Your task to perform on an android device: uninstall "Facebook" Image 0: 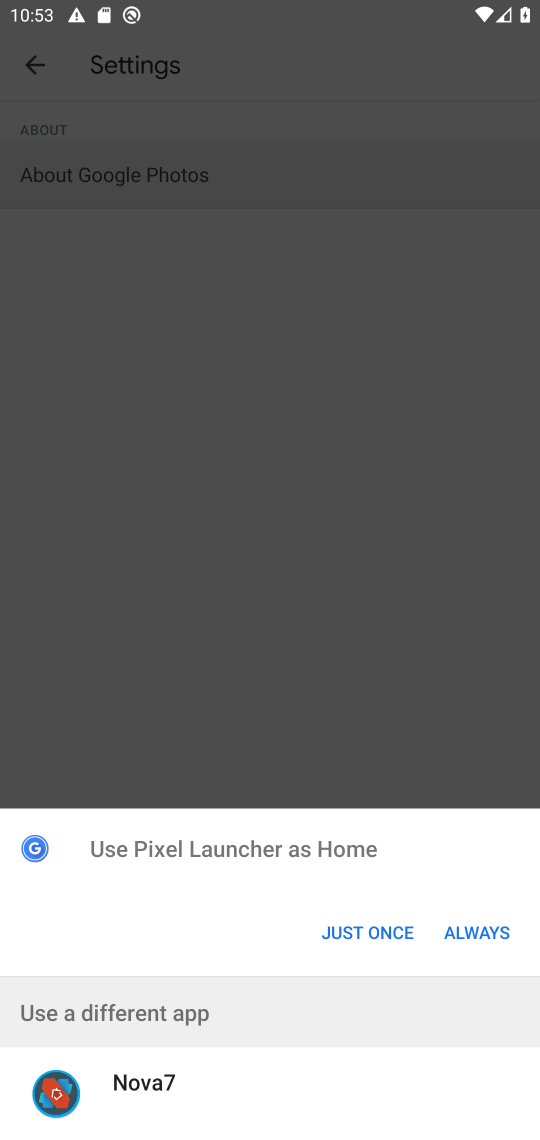
Step 0: click (481, 942)
Your task to perform on an android device: uninstall "Facebook" Image 1: 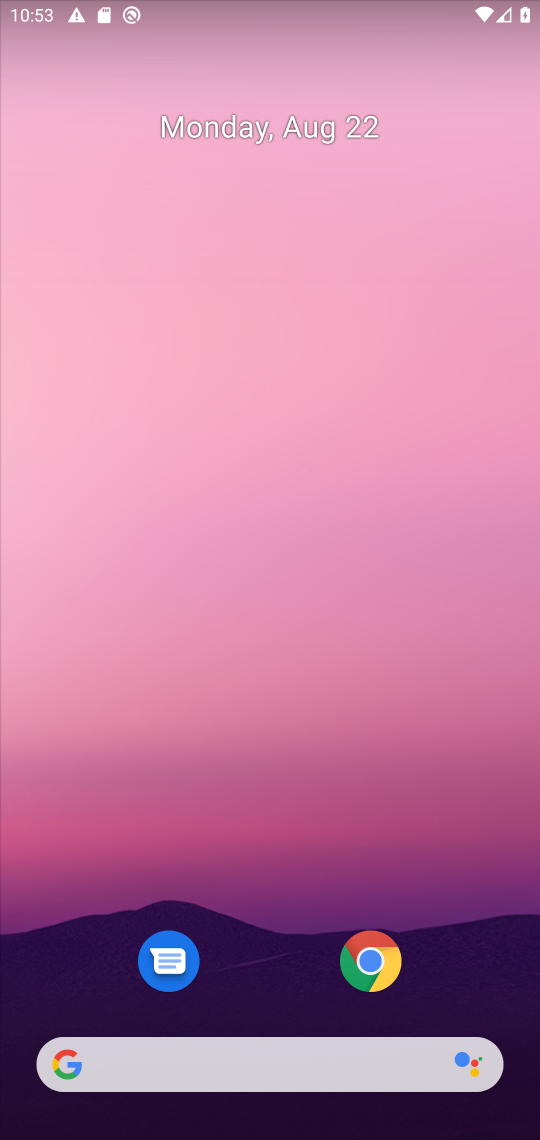
Step 1: drag from (276, 1019) to (234, 6)
Your task to perform on an android device: uninstall "Facebook" Image 2: 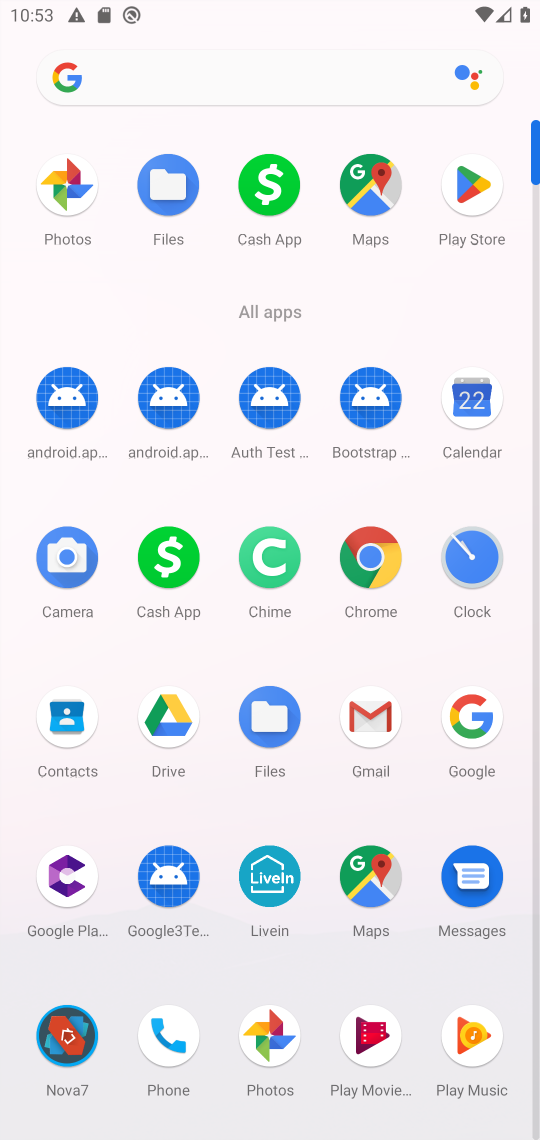
Step 2: click (458, 230)
Your task to perform on an android device: uninstall "Facebook" Image 3: 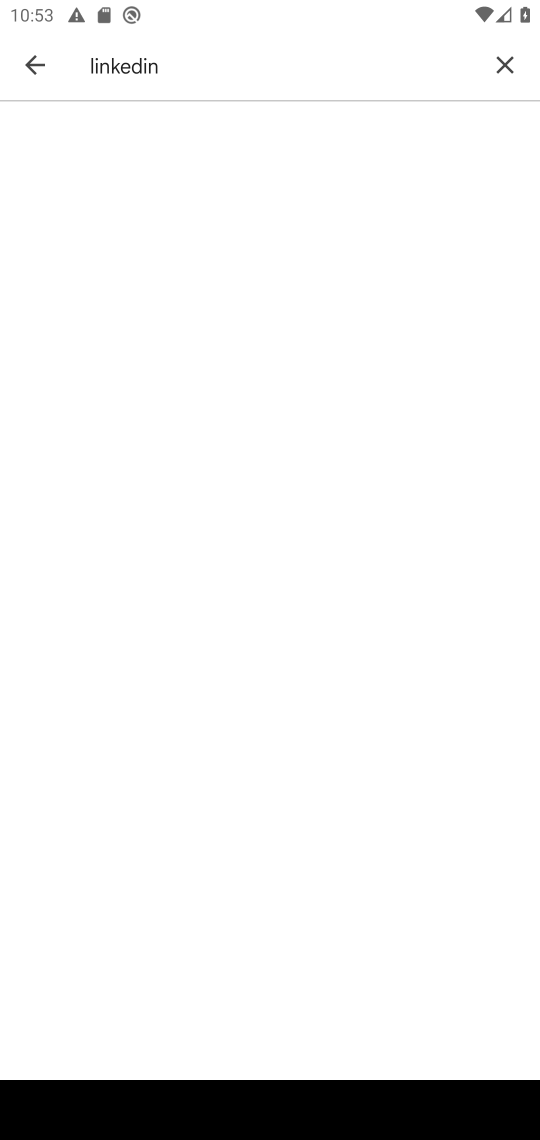
Step 3: click (480, 70)
Your task to perform on an android device: uninstall "Facebook" Image 4: 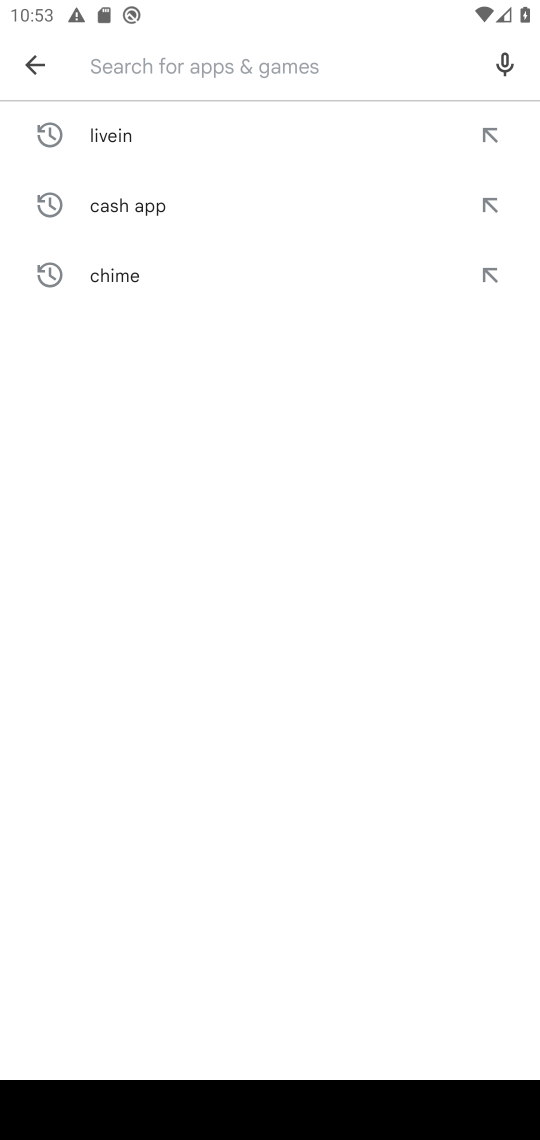
Step 4: type "facebook"
Your task to perform on an android device: uninstall "Facebook" Image 5: 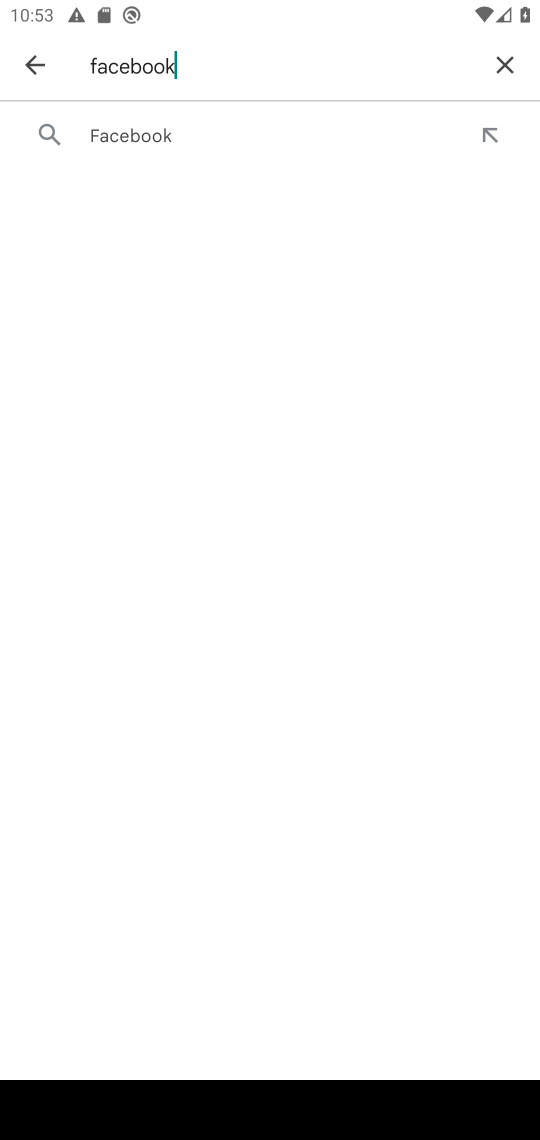
Step 5: click (269, 135)
Your task to perform on an android device: uninstall "Facebook" Image 6: 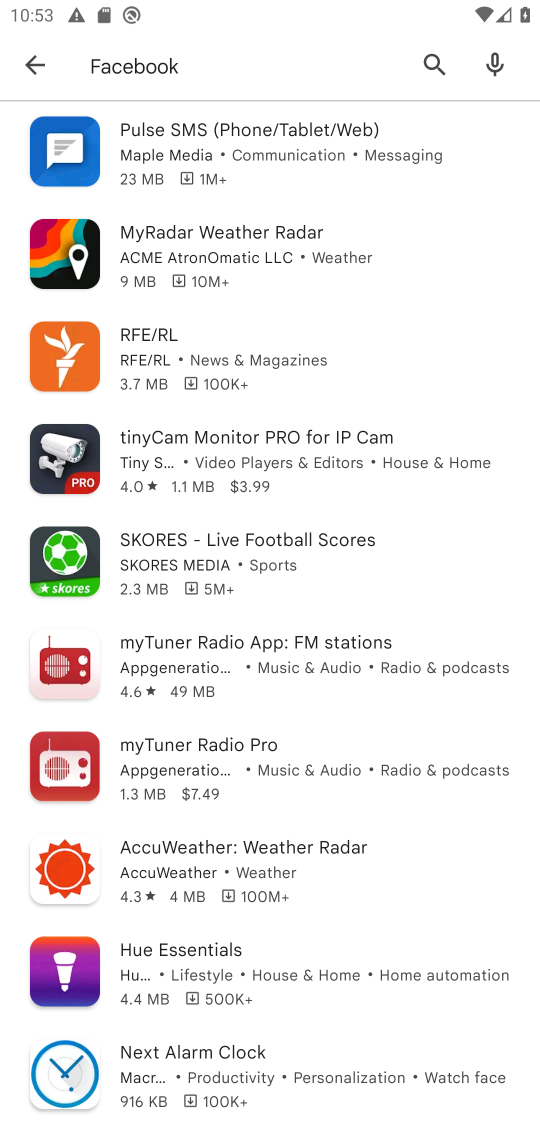
Step 6: task complete